Your task to perform on an android device: Open Google Chrome Image 0: 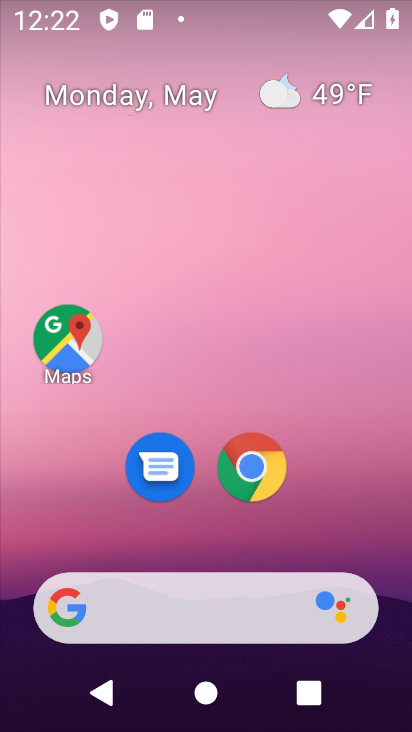
Step 0: drag from (361, 492) to (322, 165)
Your task to perform on an android device: Open Google Chrome Image 1: 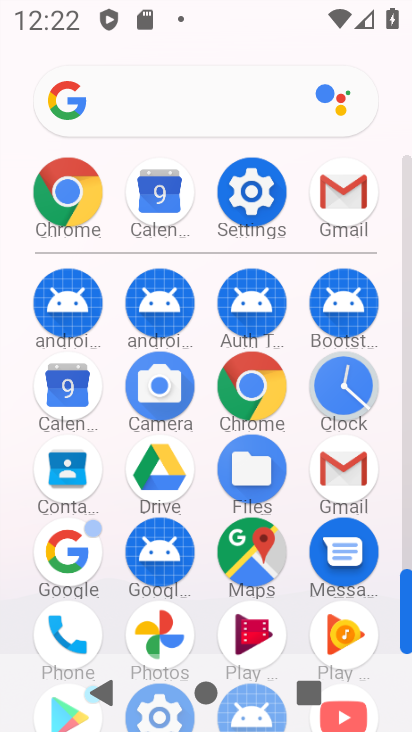
Step 1: click (239, 395)
Your task to perform on an android device: Open Google Chrome Image 2: 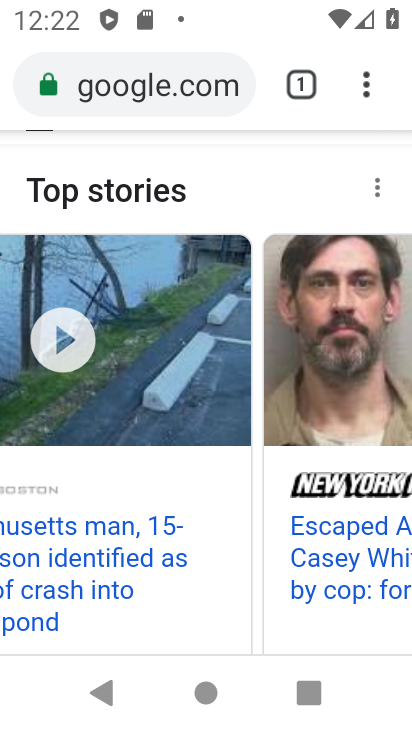
Step 2: click (192, 103)
Your task to perform on an android device: Open Google Chrome Image 3: 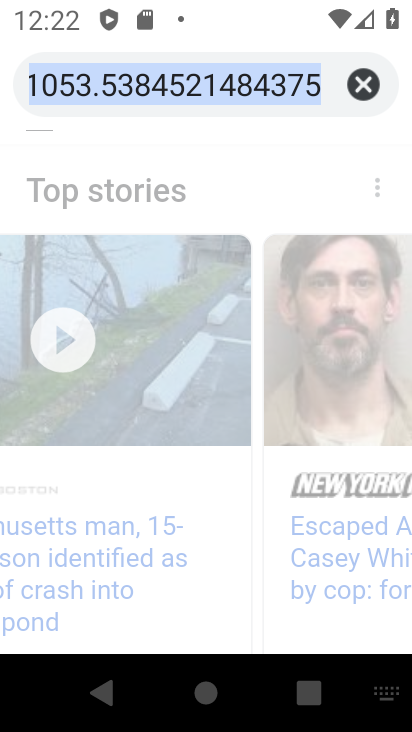
Step 3: click (368, 87)
Your task to perform on an android device: Open Google Chrome Image 4: 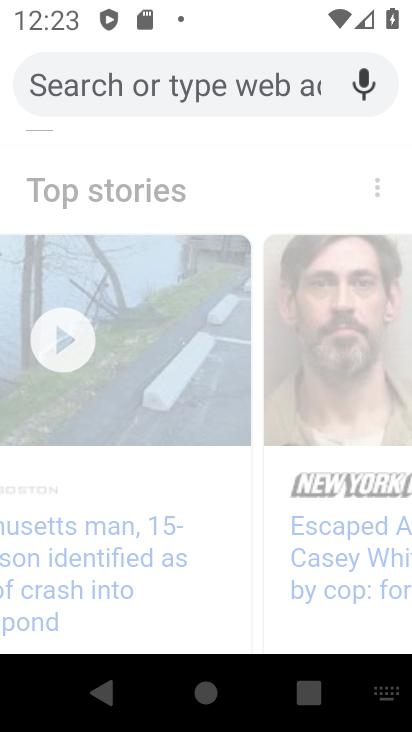
Step 4: task complete